Your task to perform on an android device: find photos in the google photos app Image 0: 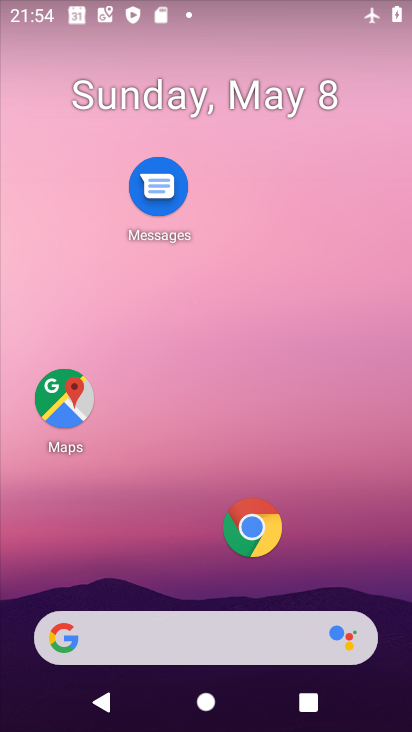
Step 0: drag from (157, 549) to (128, 48)
Your task to perform on an android device: find photos in the google photos app Image 1: 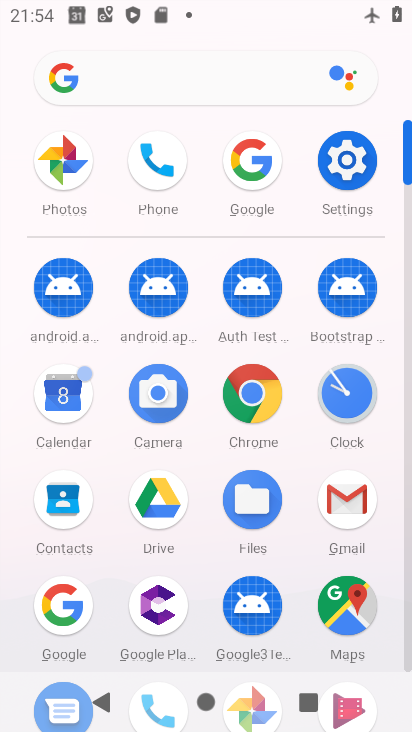
Step 1: drag from (202, 598) to (214, 241)
Your task to perform on an android device: find photos in the google photos app Image 2: 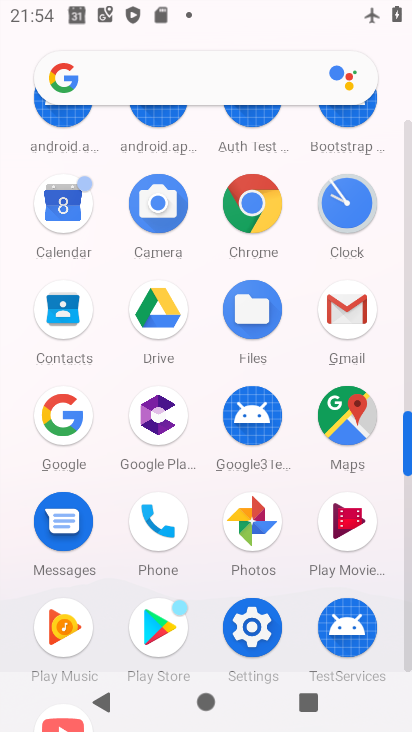
Step 2: click (258, 518)
Your task to perform on an android device: find photos in the google photos app Image 3: 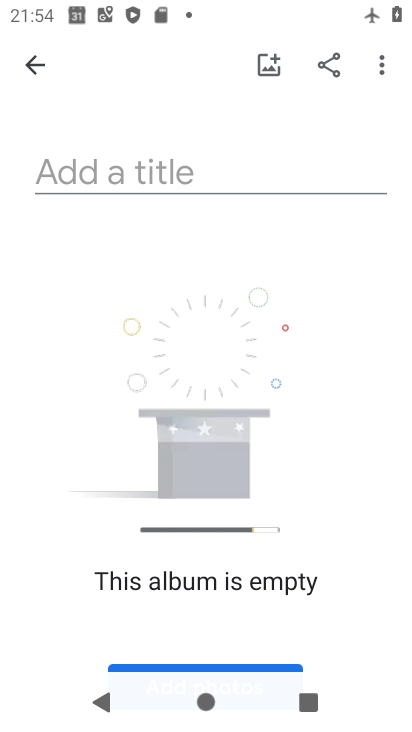
Step 3: task complete